Your task to perform on an android device: show emergency info Image 0: 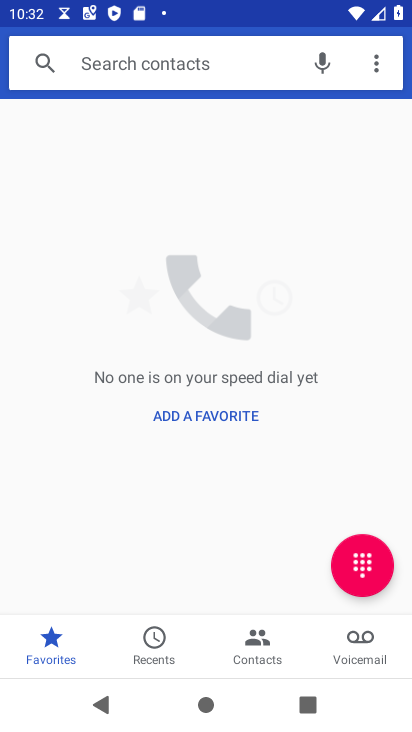
Step 0: press home button
Your task to perform on an android device: show emergency info Image 1: 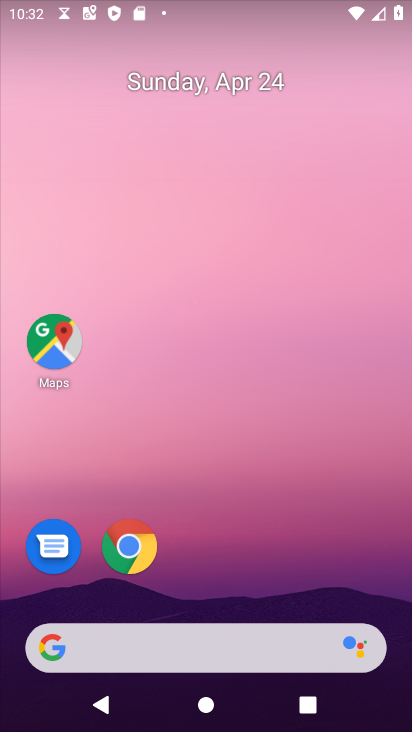
Step 1: drag from (358, 580) to (340, 1)
Your task to perform on an android device: show emergency info Image 2: 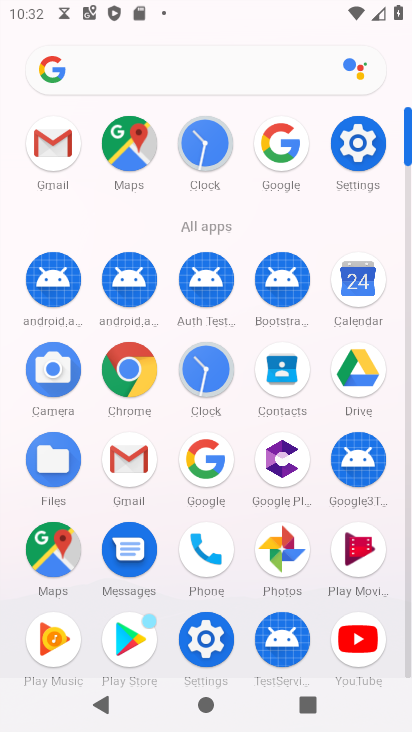
Step 2: click (355, 150)
Your task to perform on an android device: show emergency info Image 3: 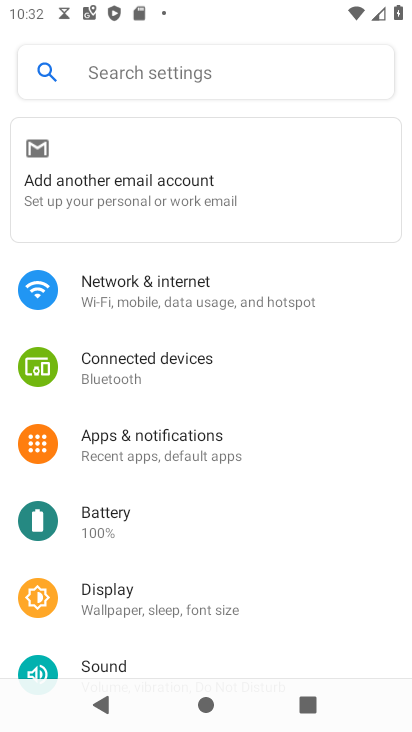
Step 3: drag from (245, 562) to (221, 105)
Your task to perform on an android device: show emergency info Image 4: 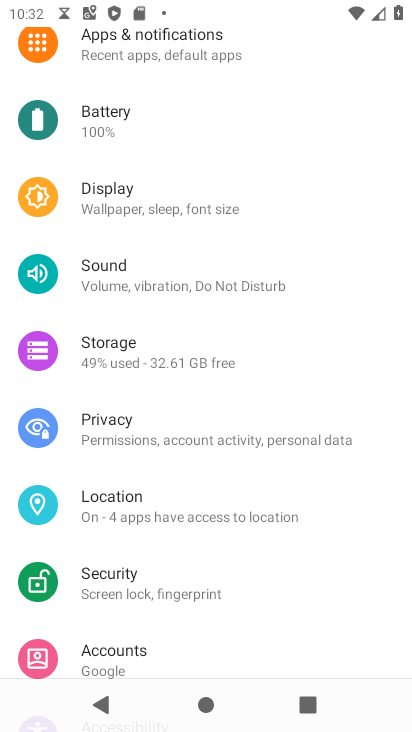
Step 4: drag from (227, 548) to (225, 69)
Your task to perform on an android device: show emergency info Image 5: 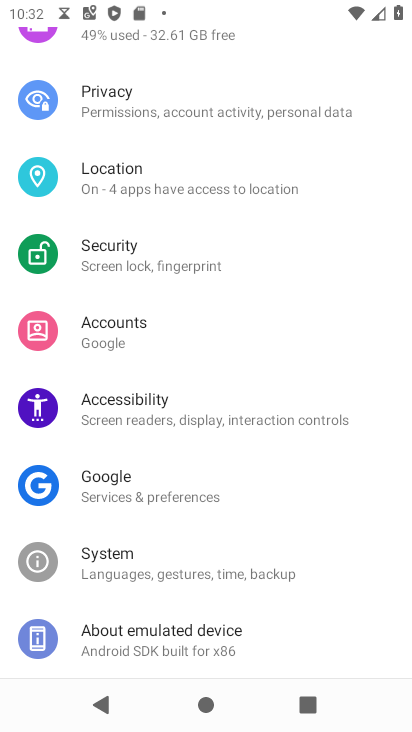
Step 5: click (147, 658)
Your task to perform on an android device: show emergency info Image 6: 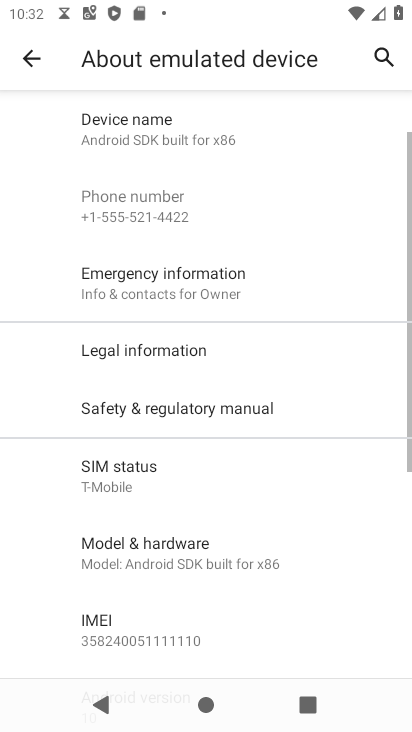
Step 6: click (145, 296)
Your task to perform on an android device: show emergency info Image 7: 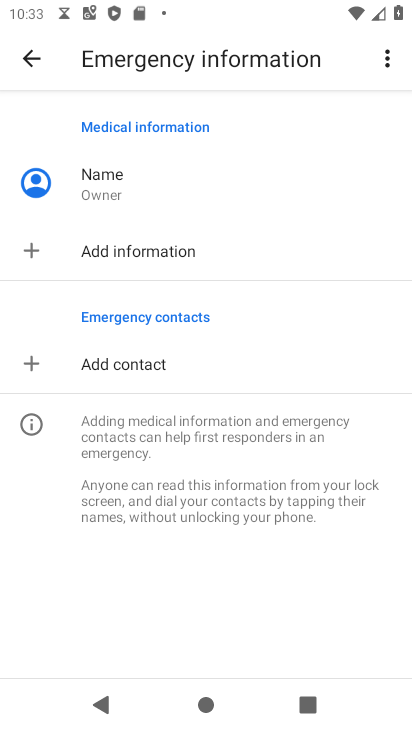
Step 7: task complete